Your task to perform on an android device: Search for vegetarian restaurants on Maps Image 0: 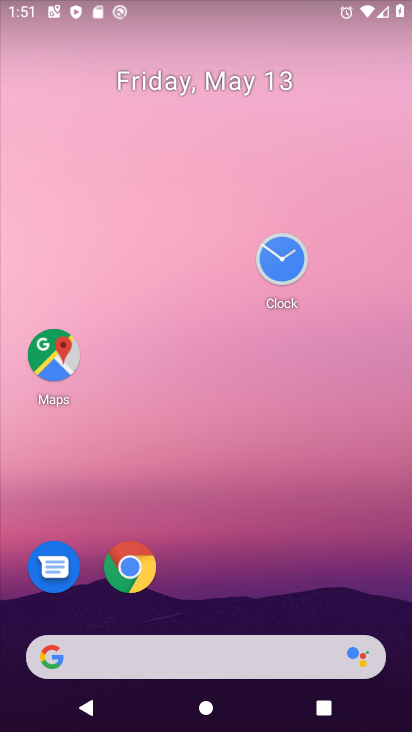
Step 0: click (66, 387)
Your task to perform on an android device: Search for vegetarian restaurants on Maps Image 1: 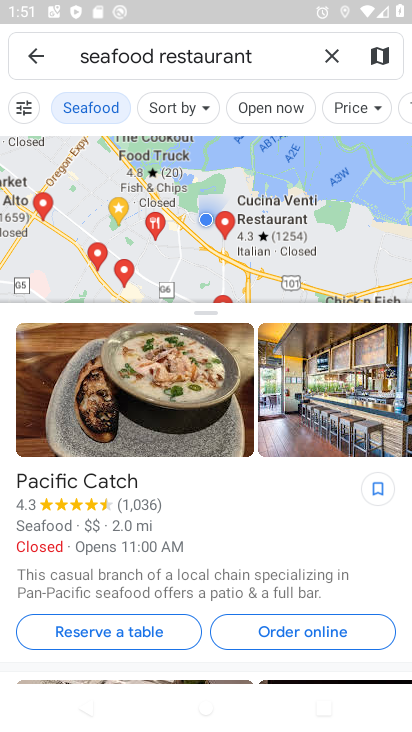
Step 1: click (333, 70)
Your task to perform on an android device: Search for vegetarian restaurants on Maps Image 2: 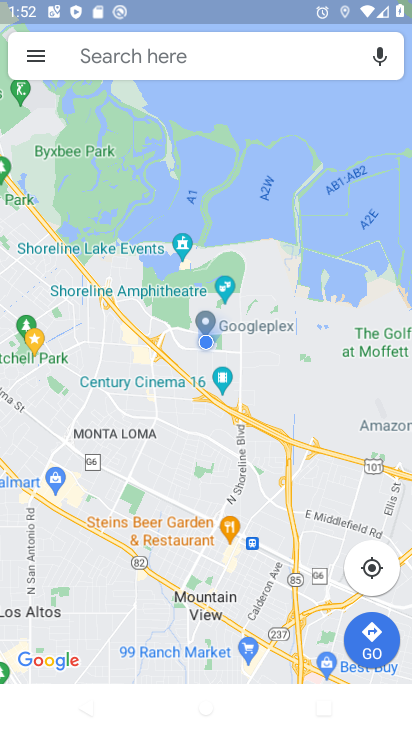
Step 2: click (249, 51)
Your task to perform on an android device: Search for vegetarian restaurants on Maps Image 3: 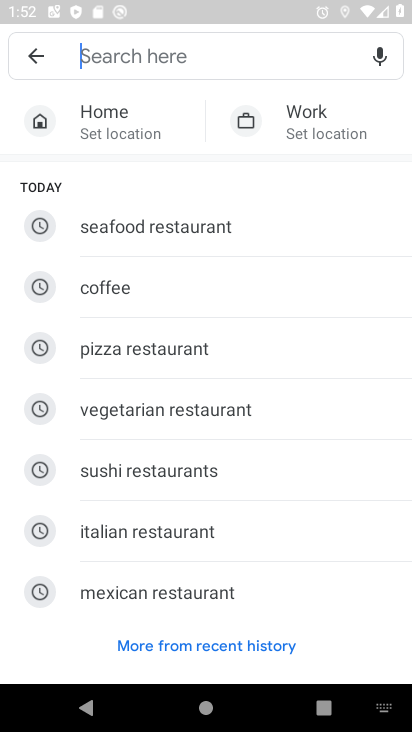
Step 3: click (195, 423)
Your task to perform on an android device: Search for vegetarian restaurants on Maps Image 4: 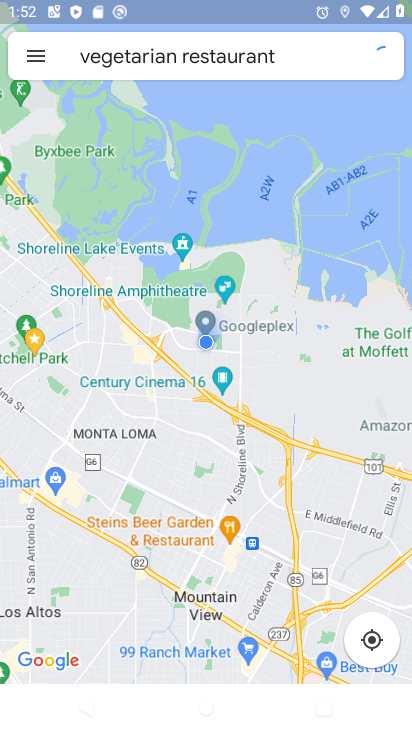
Step 4: task complete